Your task to perform on an android device: See recent photos Image 0: 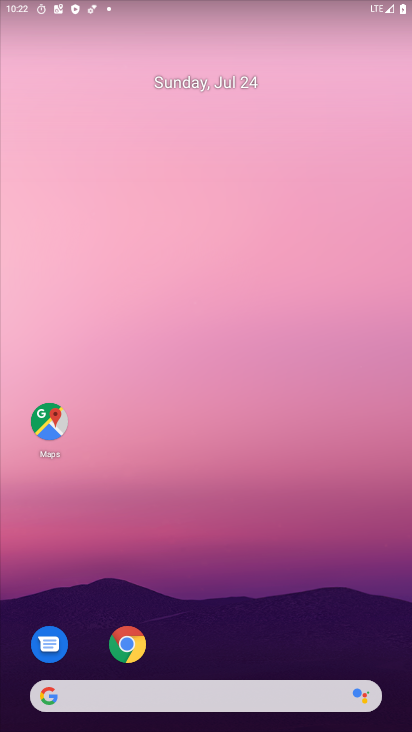
Step 0: drag from (207, 496) to (252, 156)
Your task to perform on an android device: See recent photos Image 1: 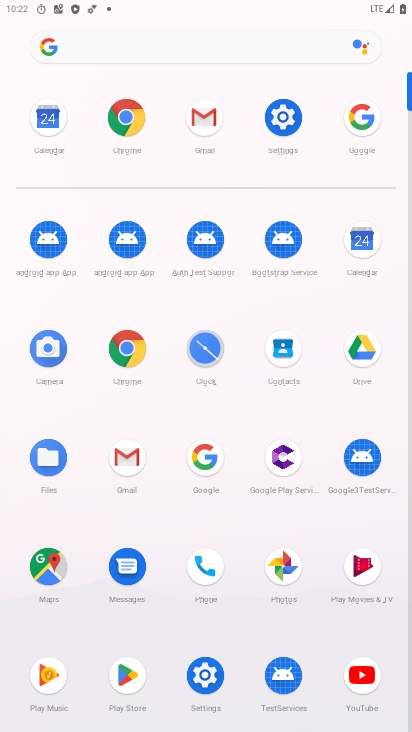
Step 1: click (290, 563)
Your task to perform on an android device: See recent photos Image 2: 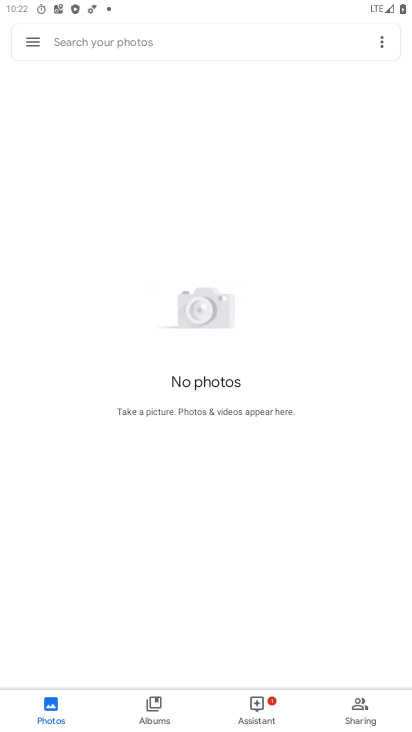
Step 2: task complete